Your task to perform on an android device: Go to Yahoo.com Image 0: 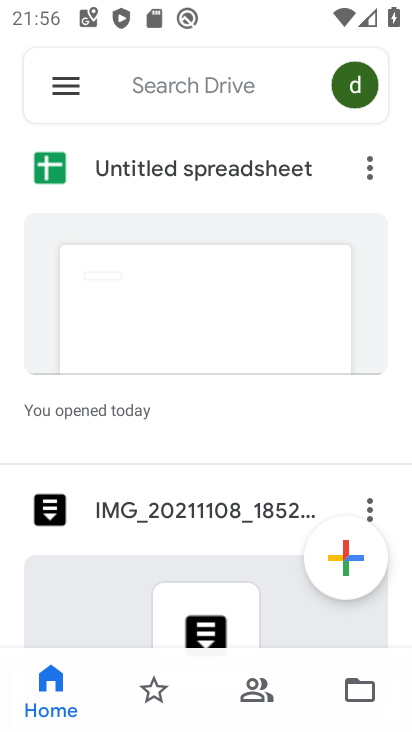
Step 0: press home button
Your task to perform on an android device: Go to Yahoo.com Image 1: 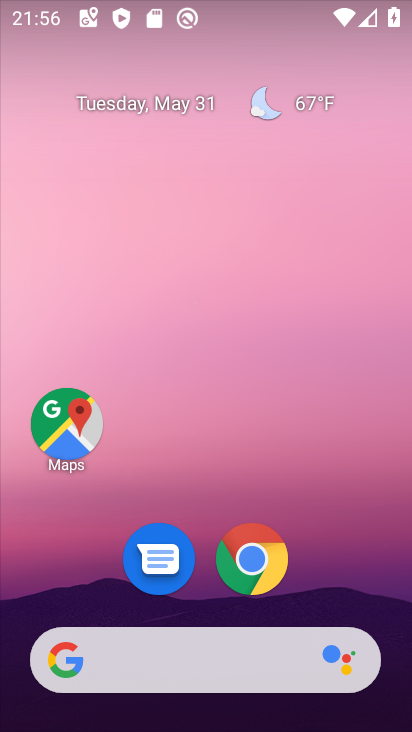
Step 1: click (248, 559)
Your task to perform on an android device: Go to Yahoo.com Image 2: 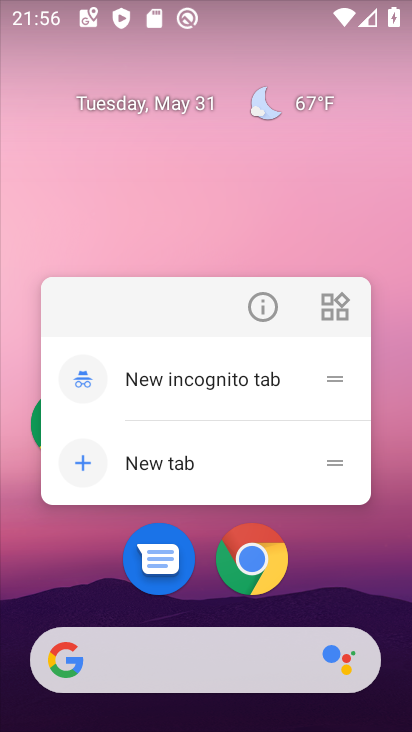
Step 2: click (271, 579)
Your task to perform on an android device: Go to Yahoo.com Image 3: 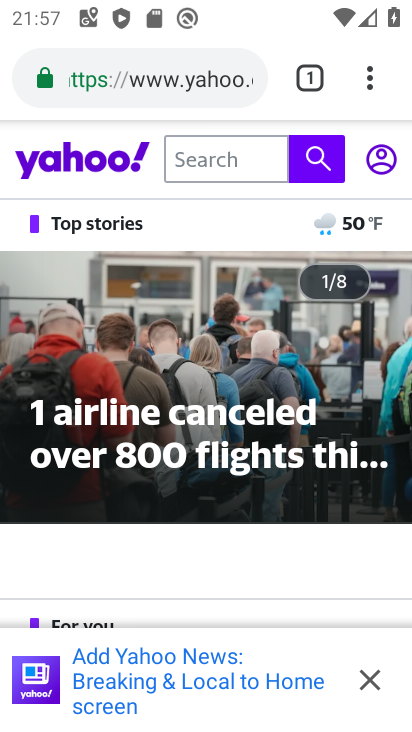
Step 3: task complete